Your task to perform on an android device: turn notification dots on Image 0: 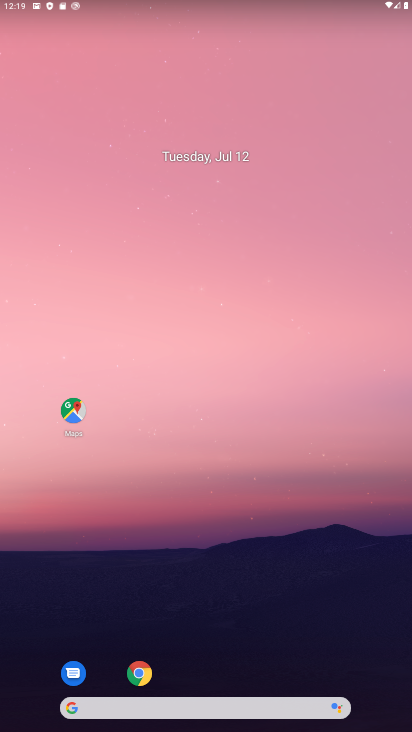
Step 0: drag from (184, 692) to (276, 213)
Your task to perform on an android device: turn notification dots on Image 1: 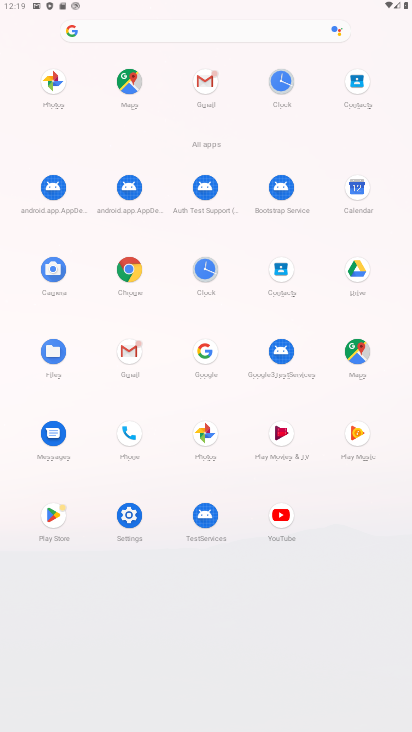
Step 1: click (130, 517)
Your task to perform on an android device: turn notification dots on Image 2: 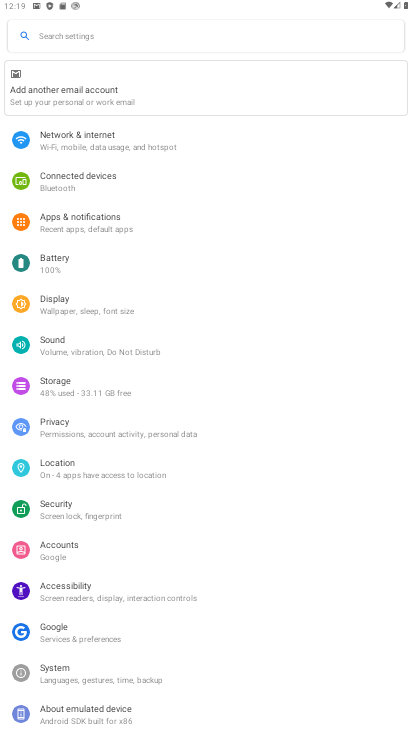
Step 2: click (107, 230)
Your task to perform on an android device: turn notification dots on Image 3: 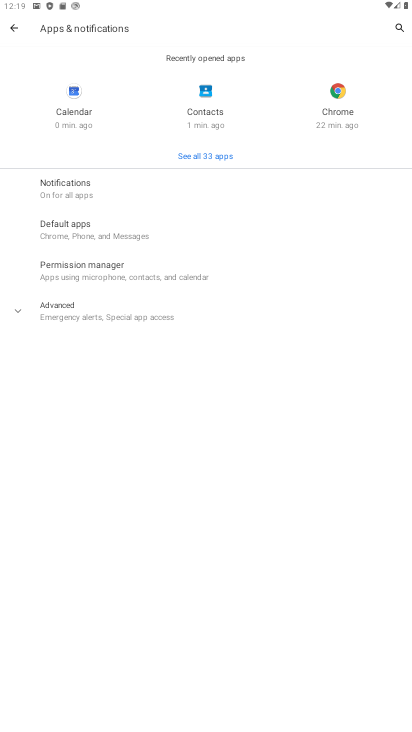
Step 3: click (151, 199)
Your task to perform on an android device: turn notification dots on Image 4: 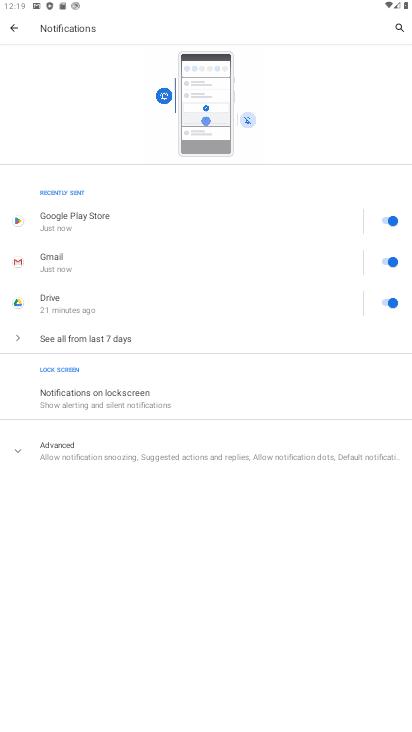
Step 4: click (94, 448)
Your task to perform on an android device: turn notification dots on Image 5: 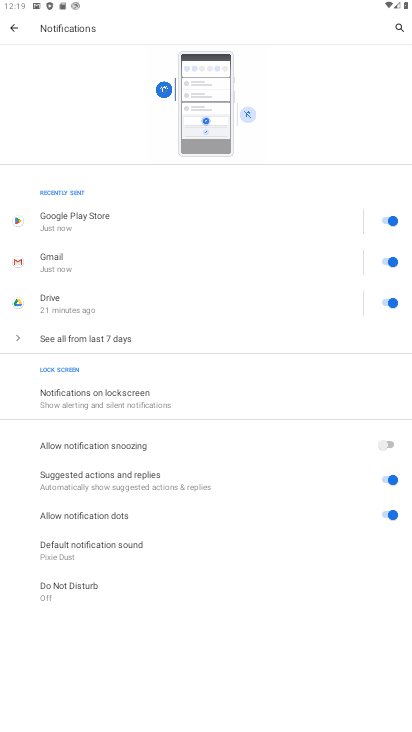
Step 5: task complete